Your task to perform on an android device: Open Google Maps and go to "Timeline" Image 0: 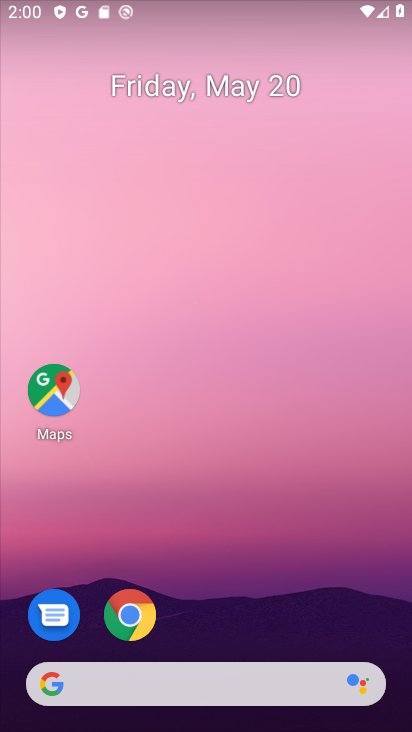
Step 0: click (45, 400)
Your task to perform on an android device: Open Google Maps and go to "Timeline" Image 1: 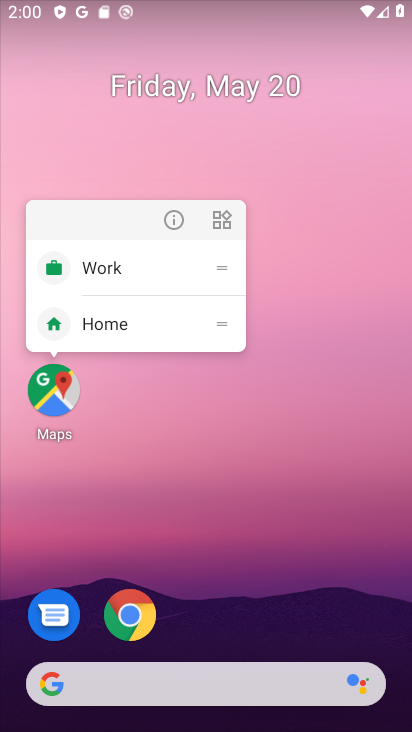
Step 1: click (45, 400)
Your task to perform on an android device: Open Google Maps and go to "Timeline" Image 2: 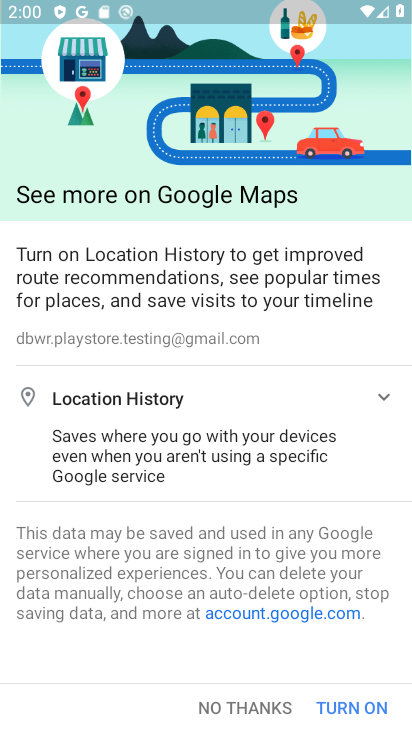
Step 2: click (254, 716)
Your task to perform on an android device: Open Google Maps and go to "Timeline" Image 3: 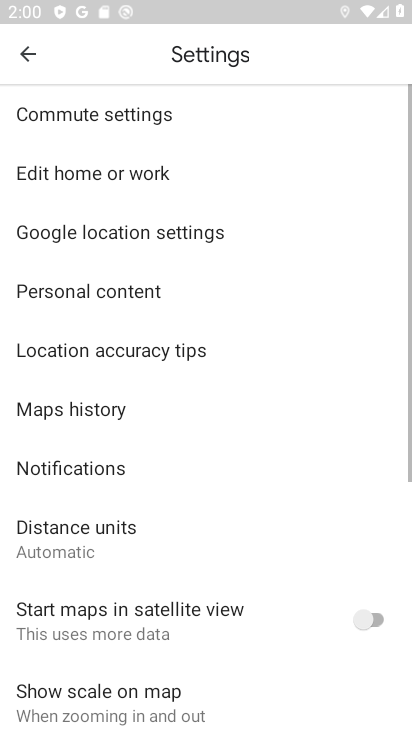
Step 3: click (30, 72)
Your task to perform on an android device: Open Google Maps and go to "Timeline" Image 4: 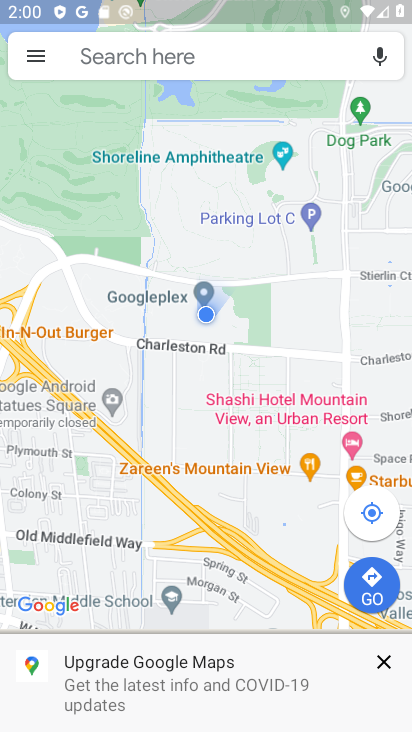
Step 4: click (27, 36)
Your task to perform on an android device: Open Google Maps and go to "Timeline" Image 5: 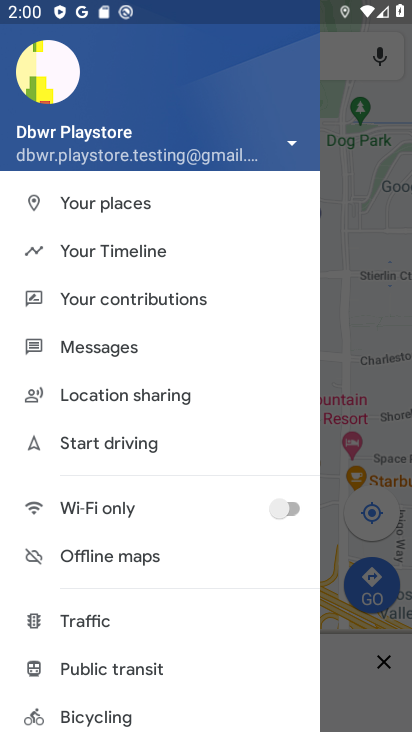
Step 5: click (138, 262)
Your task to perform on an android device: Open Google Maps and go to "Timeline" Image 6: 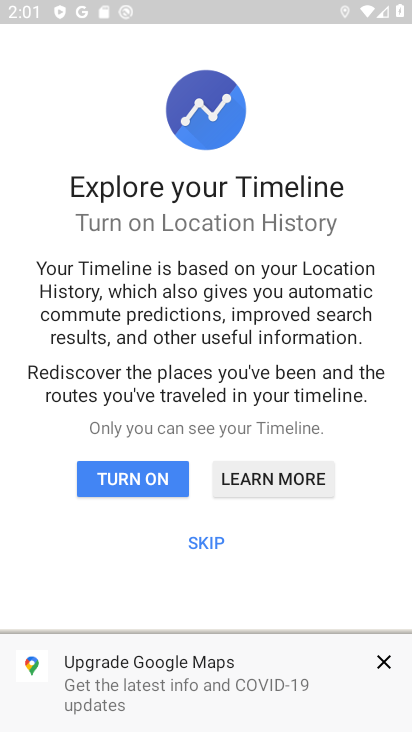
Step 6: click (220, 533)
Your task to perform on an android device: Open Google Maps and go to "Timeline" Image 7: 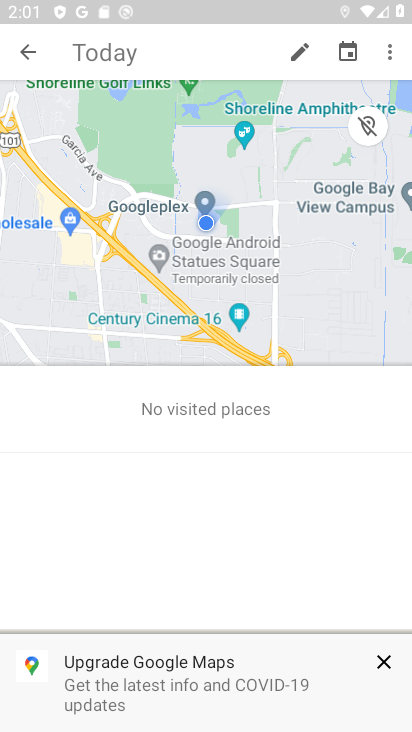
Step 7: task complete